Your task to perform on an android device: add a contact in the contacts app Image 0: 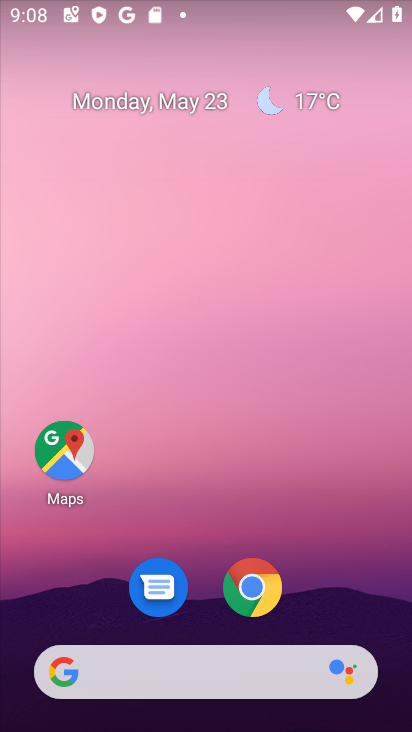
Step 0: drag from (190, 525) to (275, 32)
Your task to perform on an android device: add a contact in the contacts app Image 1: 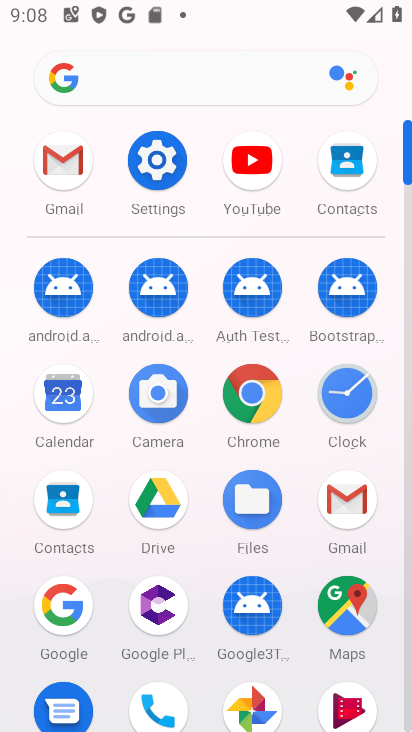
Step 1: click (57, 512)
Your task to perform on an android device: add a contact in the contacts app Image 2: 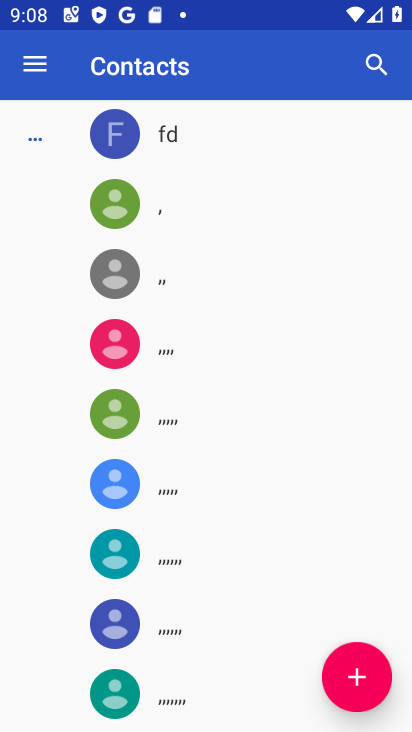
Step 2: click (372, 669)
Your task to perform on an android device: add a contact in the contacts app Image 3: 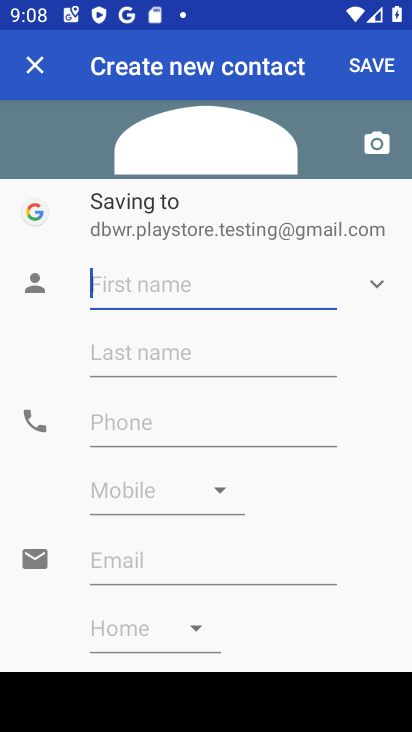
Step 3: click (133, 279)
Your task to perform on an android device: add a contact in the contacts app Image 4: 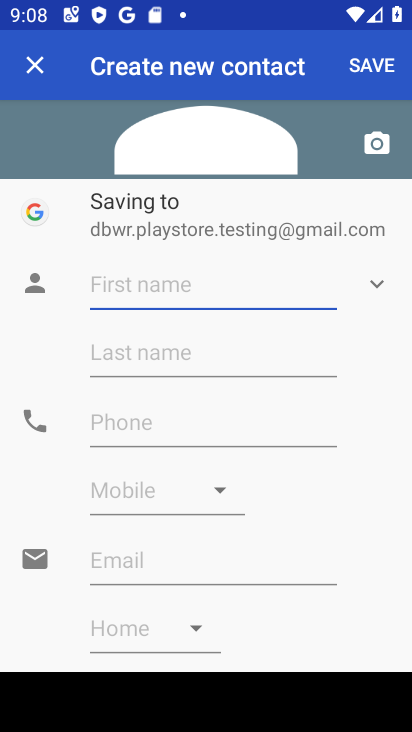
Step 4: type "hghvh"
Your task to perform on an android device: add a contact in the contacts app Image 5: 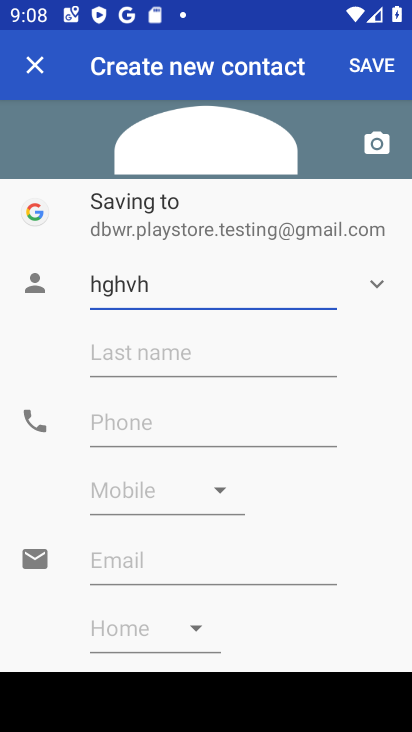
Step 5: click (204, 413)
Your task to perform on an android device: add a contact in the contacts app Image 6: 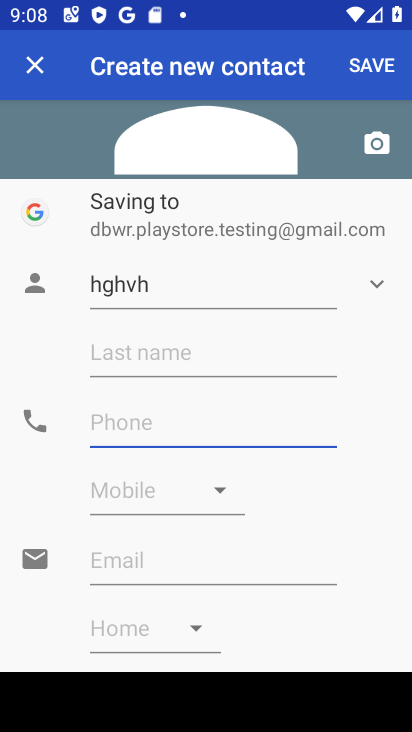
Step 6: type "8686"
Your task to perform on an android device: add a contact in the contacts app Image 7: 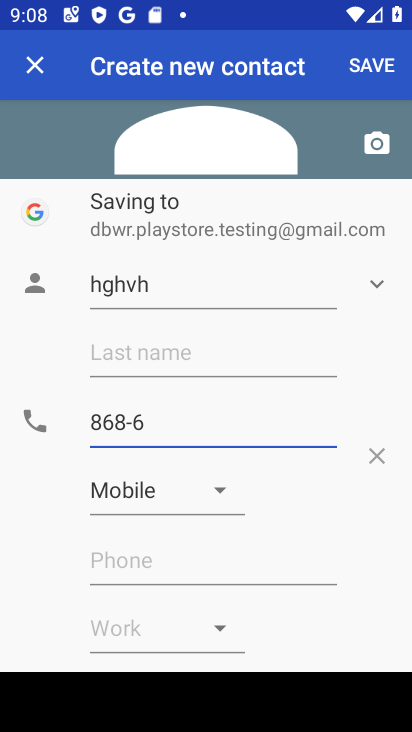
Step 7: click (375, 76)
Your task to perform on an android device: add a contact in the contacts app Image 8: 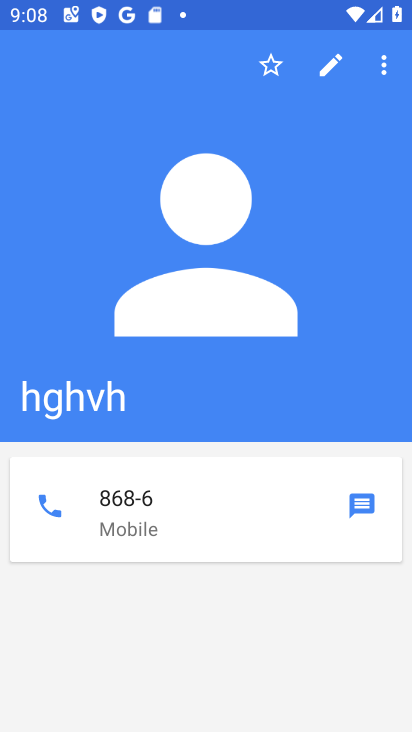
Step 8: task complete